Your task to perform on an android device: Go to Amazon Image 0: 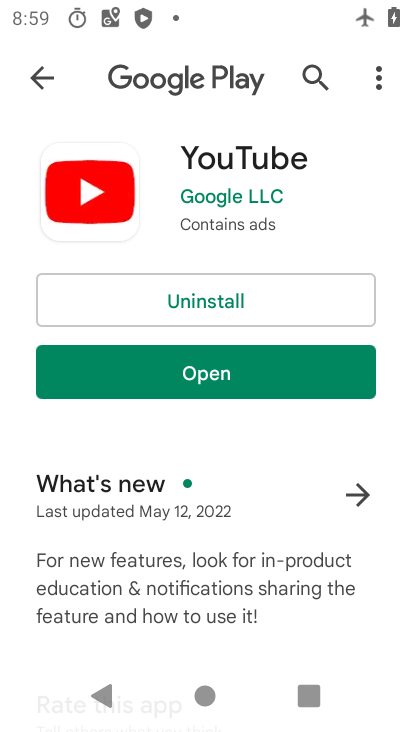
Step 0: press home button
Your task to perform on an android device: Go to Amazon Image 1: 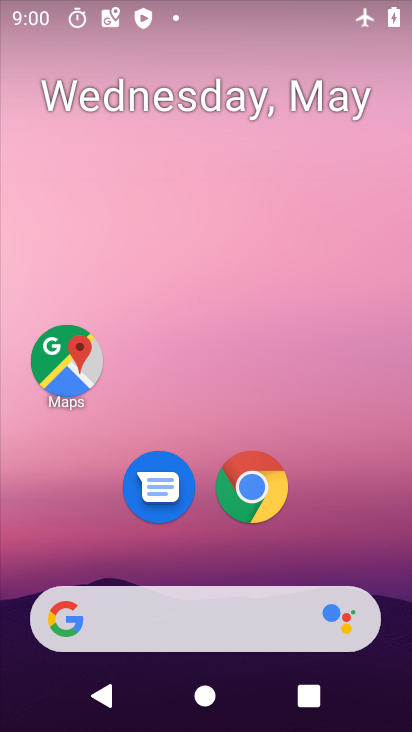
Step 1: click (219, 483)
Your task to perform on an android device: Go to Amazon Image 2: 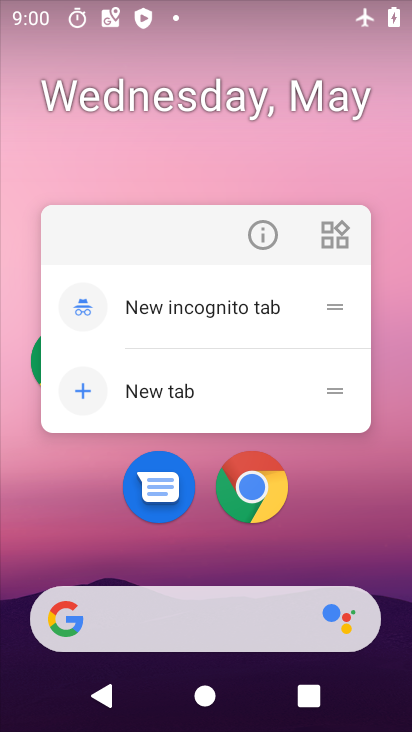
Step 2: click (235, 474)
Your task to perform on an android device: Go to Amazon Image 3: 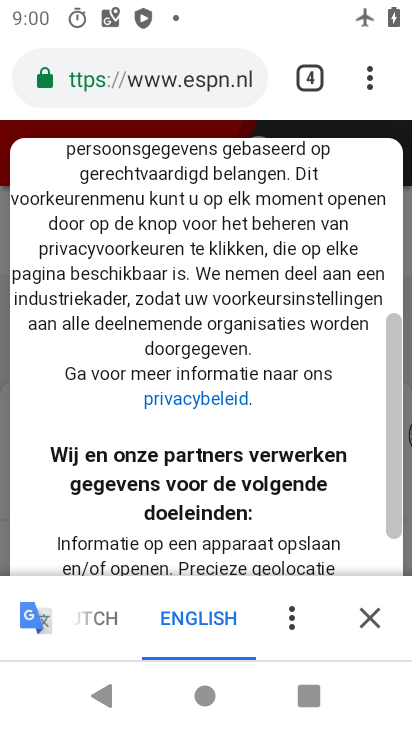
Step 3: click (293, 72)
Your task to perform on an android device: Go to Amazon Image 4: 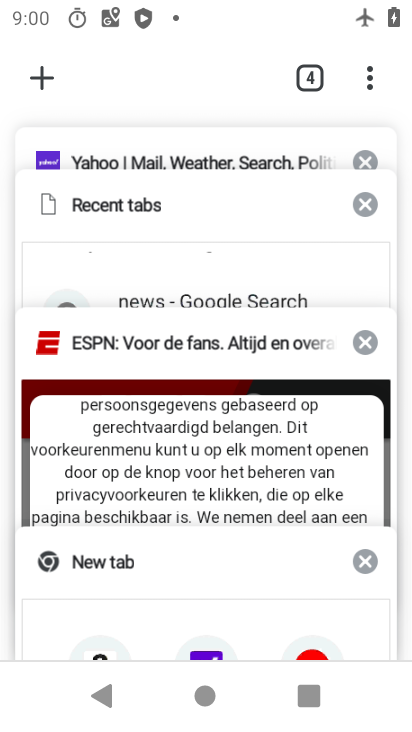
Step 4: click (33, 74)
Your task to perform on an android device: Go to Amazon Image 5: 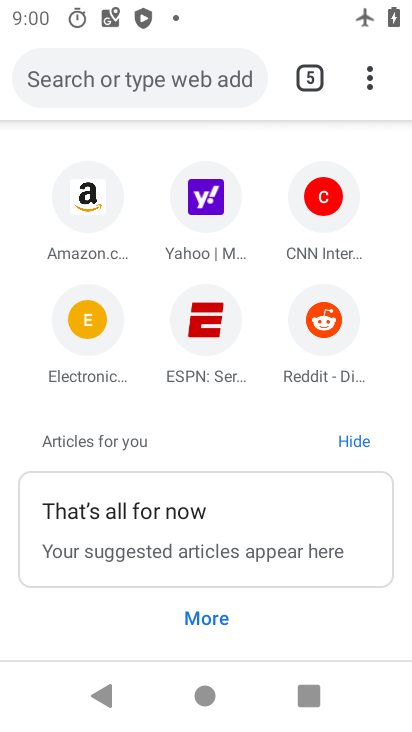
Step 5: click (80, 200)
Your task to perform on an android device: Go to Amazon Image 6: 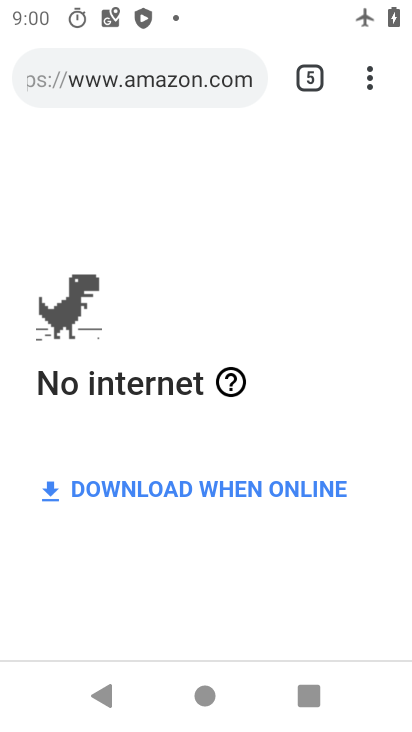
Step 6: task complete